Your task to perform on an android device: turn on sleep mode Image 0: 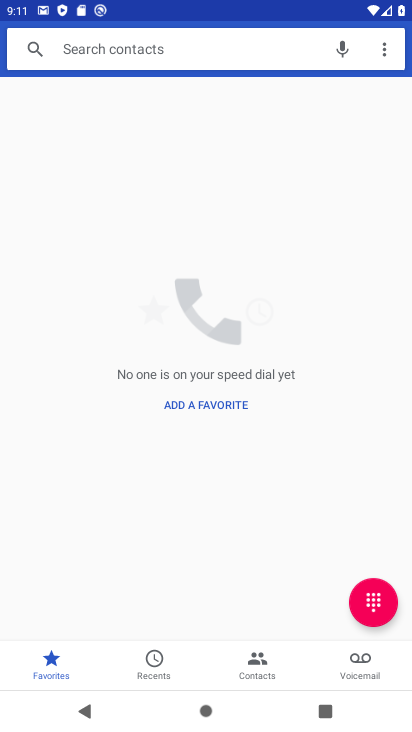
Step 0: press back button
Your task to perform on an android device: turn on sleep mode Image 1: 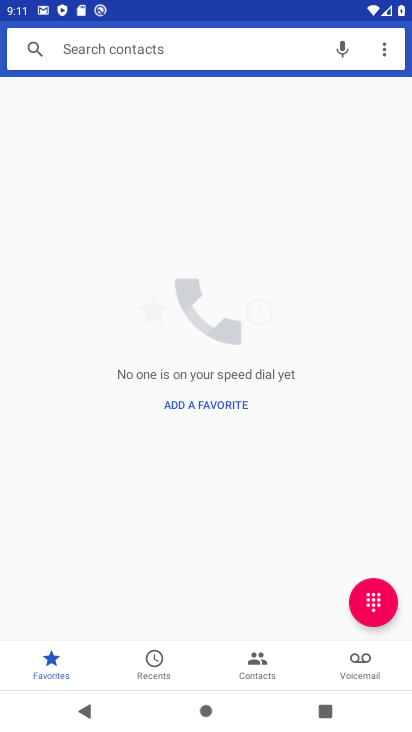
Step 1: press back button
Your task to perform on an android device: turn on sleep mode Image 2: 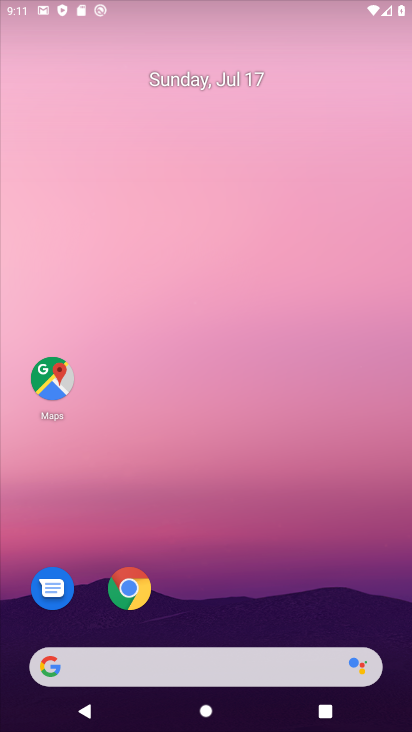
Step 2: press back button
Your task to perform on an android device: turn on sleep mode Image 3: 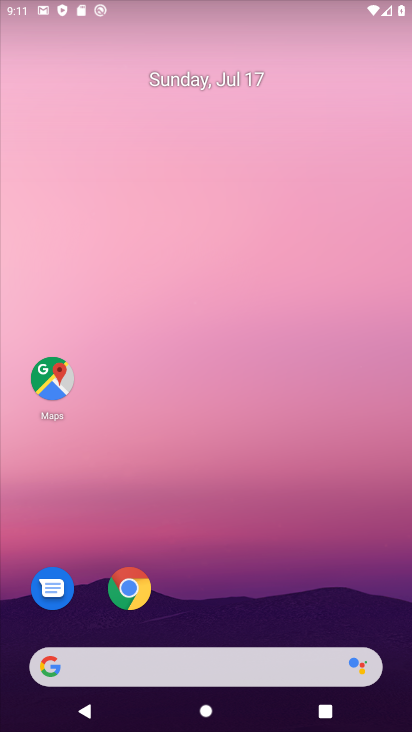
Step 3: press home button
Your task to perform on an android device: turn on sleep mode Image 4: 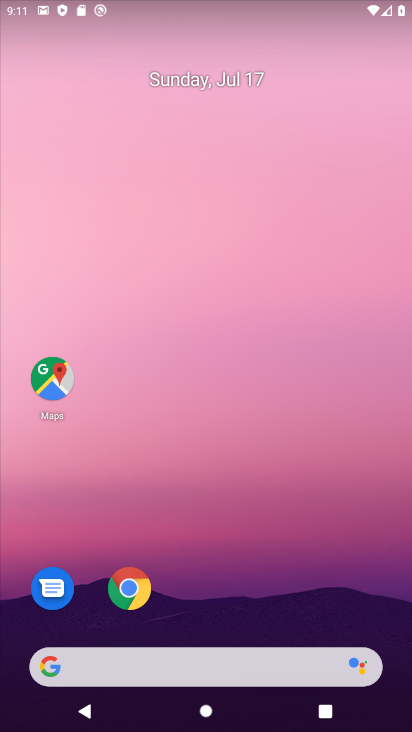
Step 4: drag from (331, 687) to (246, 101)
Your task to perform on an android device: turn on sleep mode Image 5: 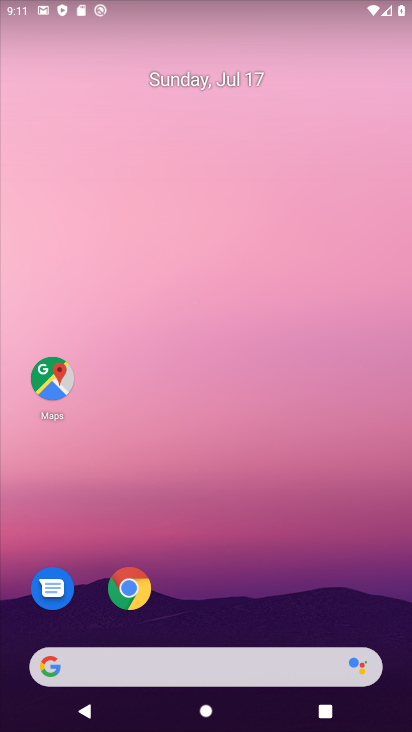
Step 5: drag from (243, 494) to (257, 102)
Your task to perform on an android device: turn on sleep mode Image 6: 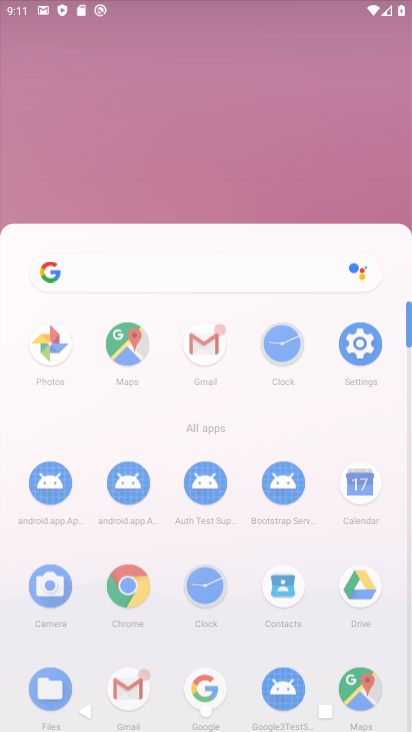
Step 6: drag from (194, 626) to (205, 117)
Your task to perform on an android device: turn on sleep mode Image 7: 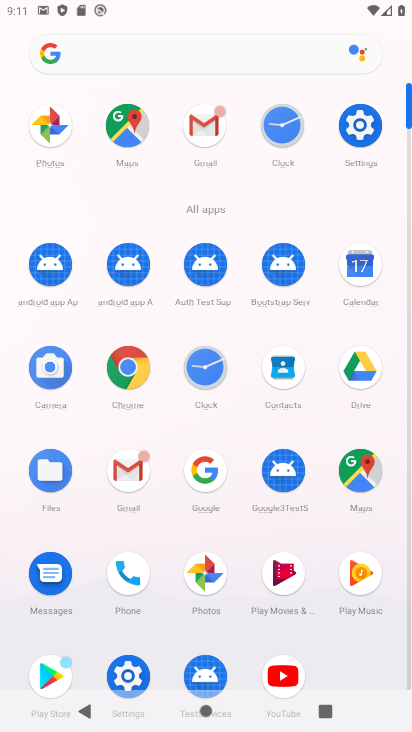
Step 7: drag from (239, 593) to (239, 187)
Your task to perform on an android device: turn on sleep mode Image 8: 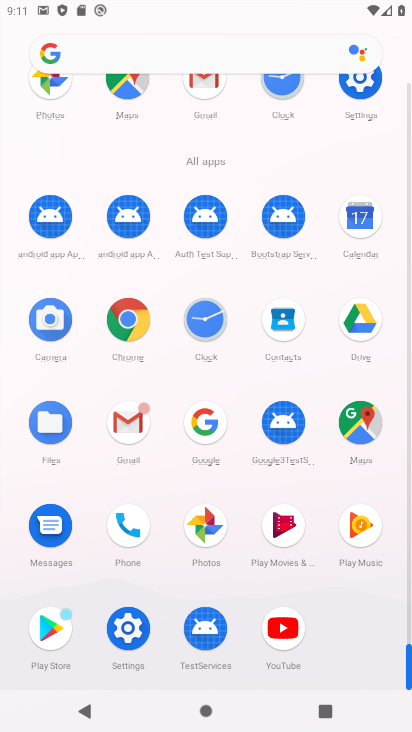
Step 8: click (129, 641)
Your task to perform on an android device: turn on sleep mode Image 9: 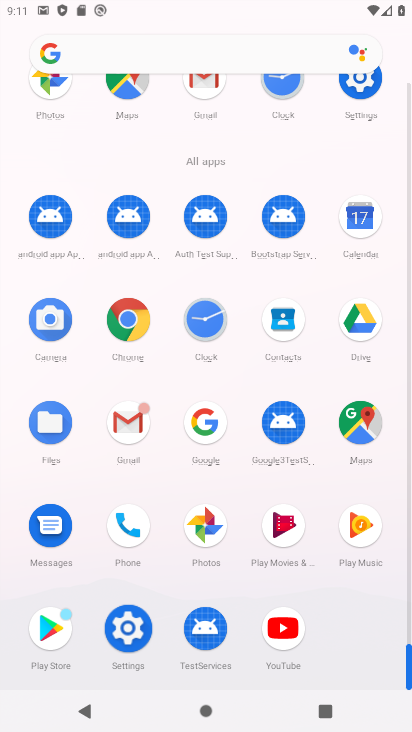
Step 9: click (129, 641)
Your task to perform on an android device: turn on sleep mode Image 10: 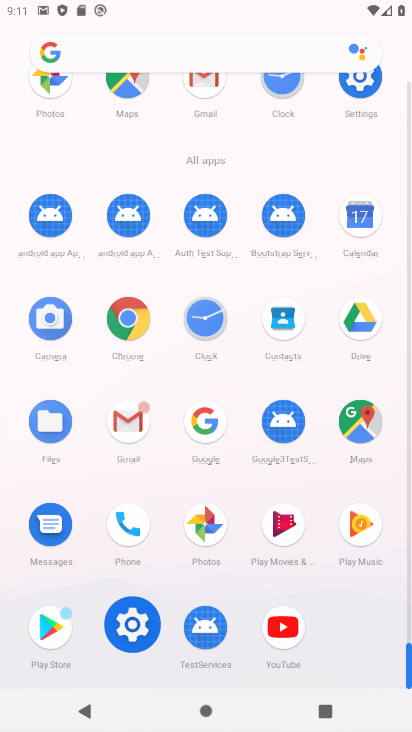
Step 10: click (129, 640)
Your task to perform on an android device: turn on sleep mode Image 11: 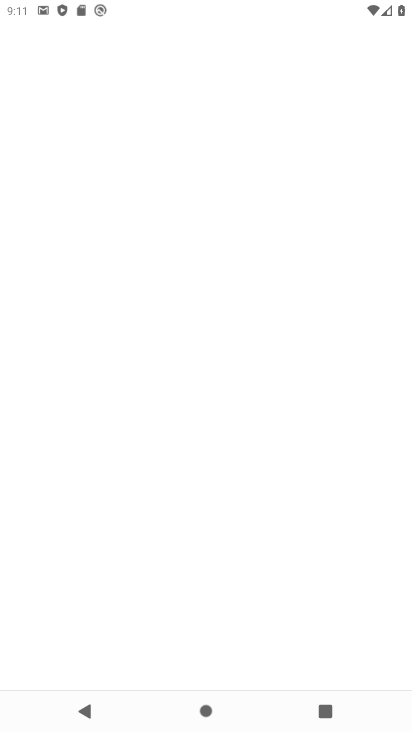
Step 11: click (130, 637)
Your task to perform on an android device: turn on sleep mode Image 12: 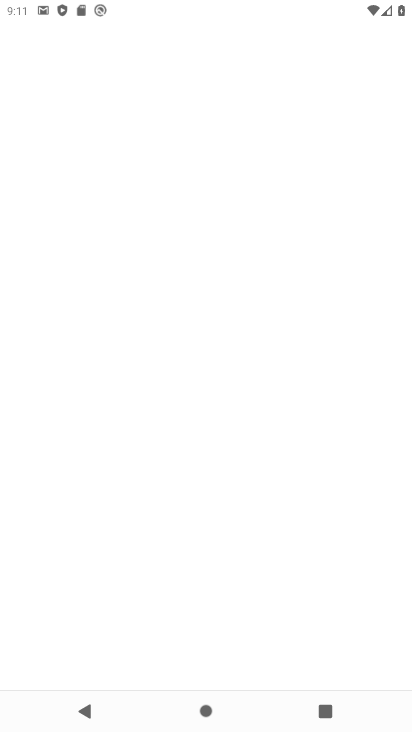
Step 12: click (132, 633)
Your task to perform on an android device: turn on sleep mode Image 13: 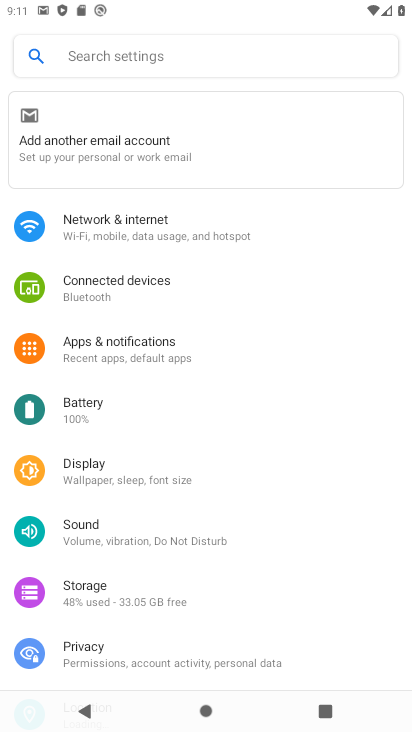
Step 13: click (104, 481)
Your task to perform on an android device: turn on sleep mode Image 14: 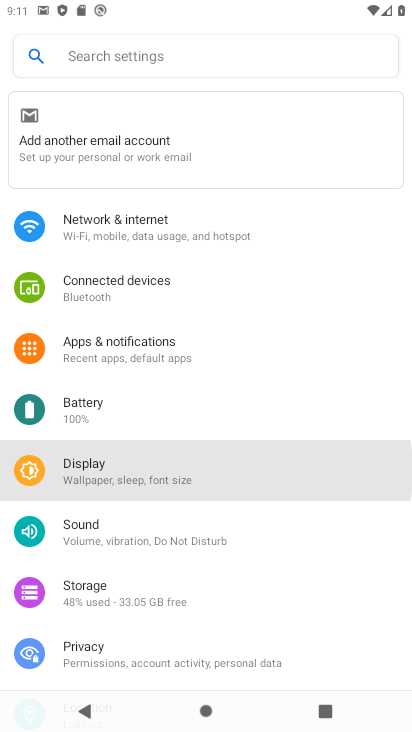
Step 14: click (104, 489)
Your task to perform on an android device: turn on sleep mode Image 15: 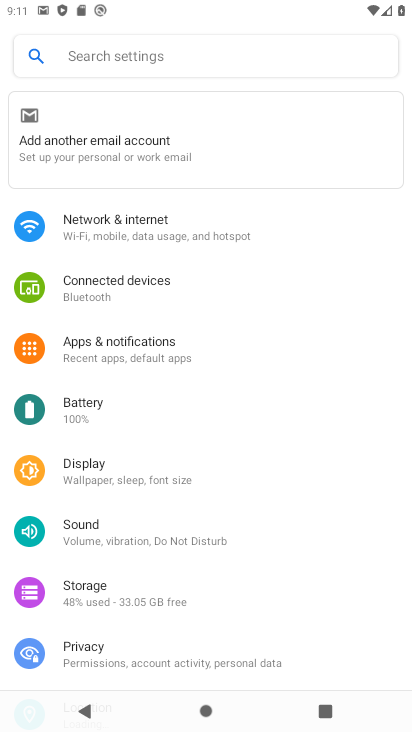
Step 15: click (101, 484)
Your task to perform on an android device: turn on sleep mode Image 16: 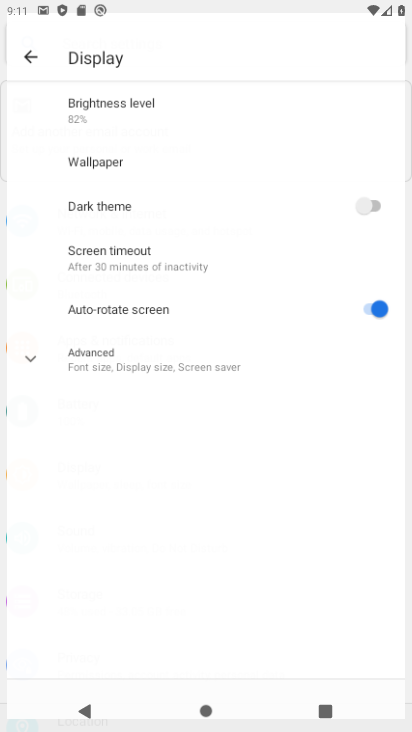
Step 16: click (98, 484)
Your task to perform on an android device: turn on sleep mode Image 17: 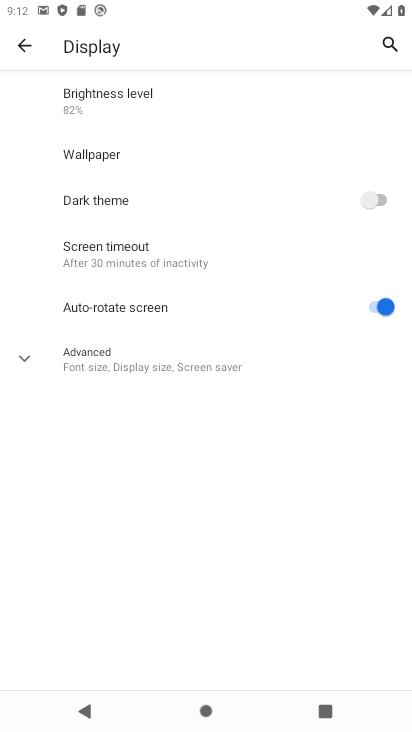
Step 17: click (136, 271)
Your task to perform on an android device: turn on sleep mode Image 18: 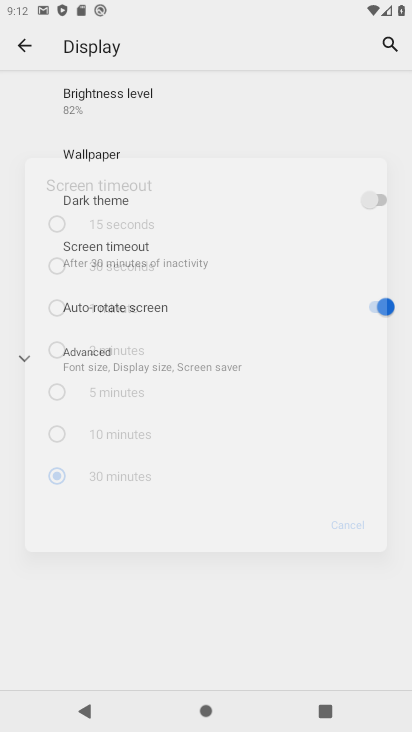
Step 18: click (131, 260)
Your task to perform on an android device: turn on sleep mode Image 19: 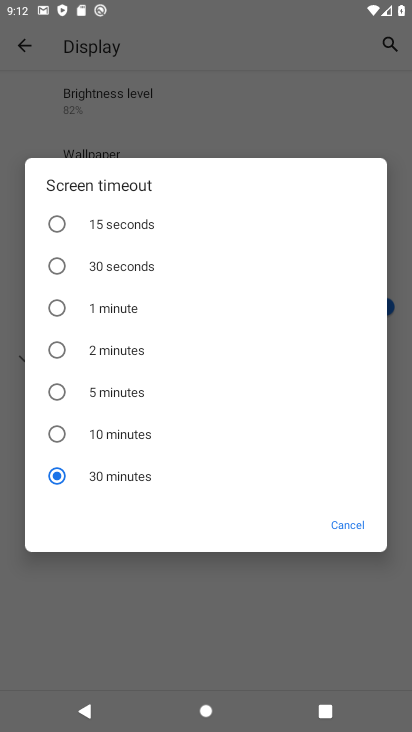
Step 19: click (130, 252)
Your task to perform on an android device: turn on sleep mode Image 20: 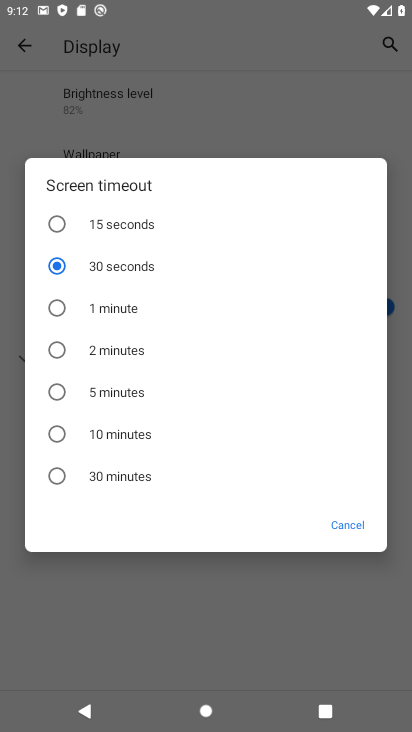
Step 20: click (60, 303)
Your task to perform on an android device: turn on sleep mode Image 21: 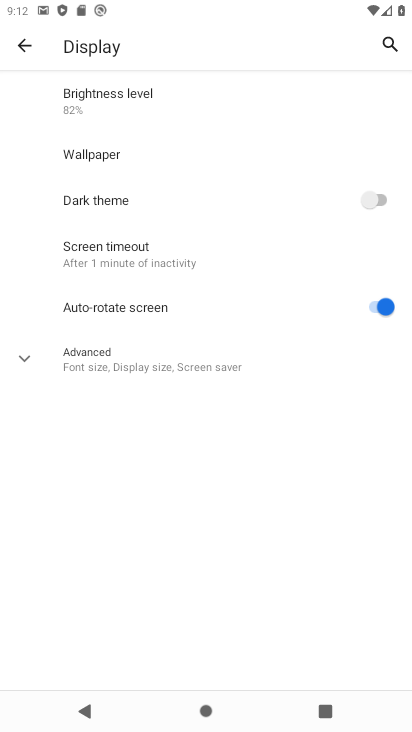
Step 21: task complete